Your task to perform on an android device: What's on my calendar today? Image 0: 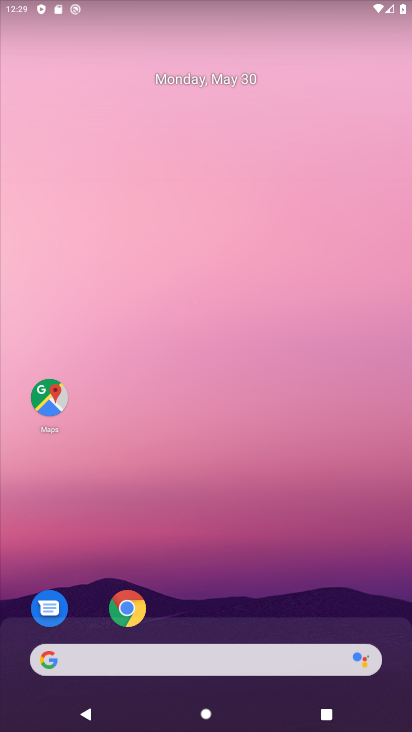
Step 0: drag from (330, 574) to (281, 0)
Your task to perform on an android device: What's on my calendar today? Image 1: 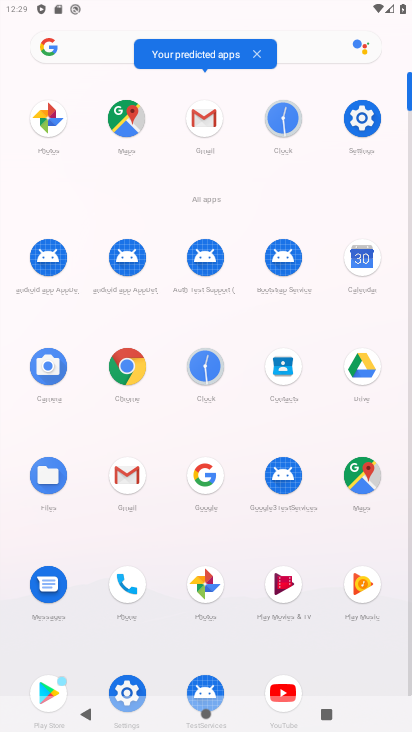
Step 1: click (284, 363)
Your task to perform on an android device: What's on my calendar today? Image 2: 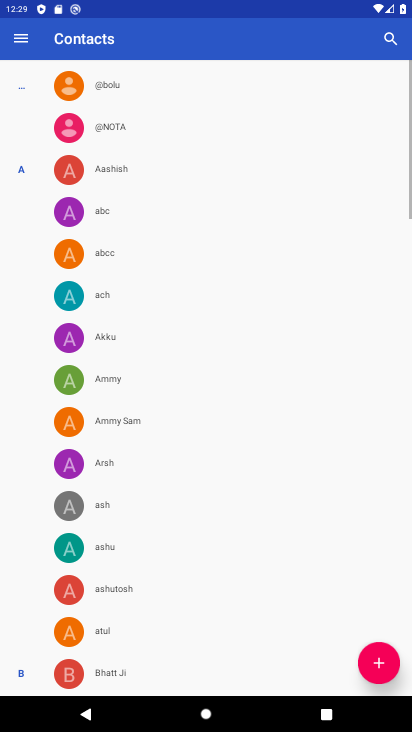
Step 2: press home button
Your task to perform on an android device: What's on my calendar today? Image 3: 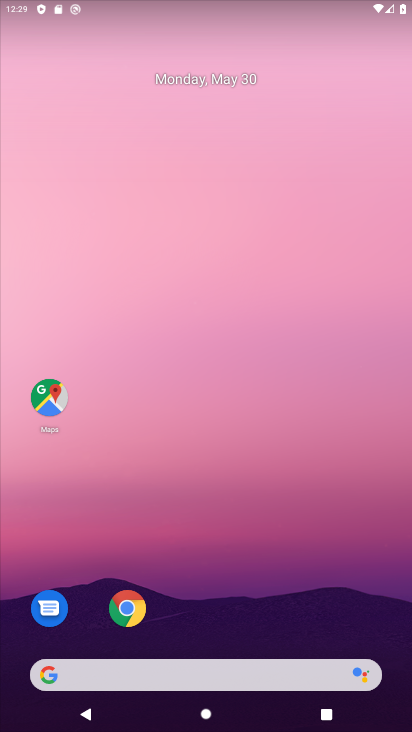
Step 3: drag from (302, 621) to (274, 104)
Your task to perform on an android device: What's on my calendar today? Image 4: 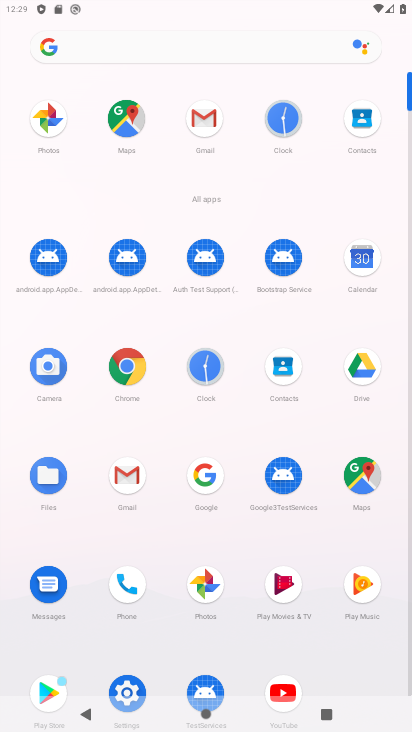
Step 4: click (355, 249)
Your task to perform on an android device: What's on my calendar today? Image 5: 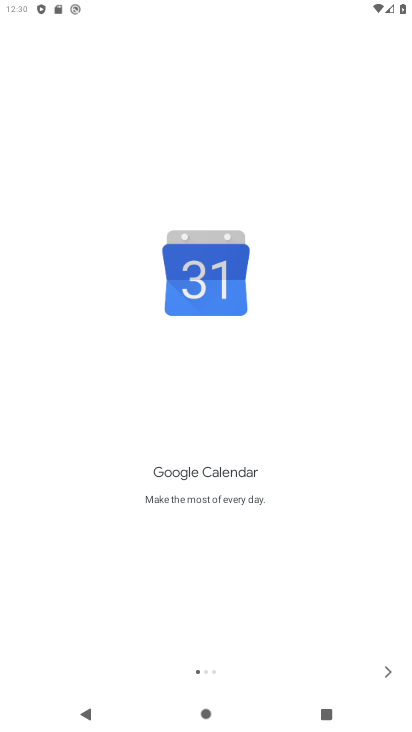
Step 5: click (383, 671)
Your task to perform on an android device: What's on my calendar today? Image 6: 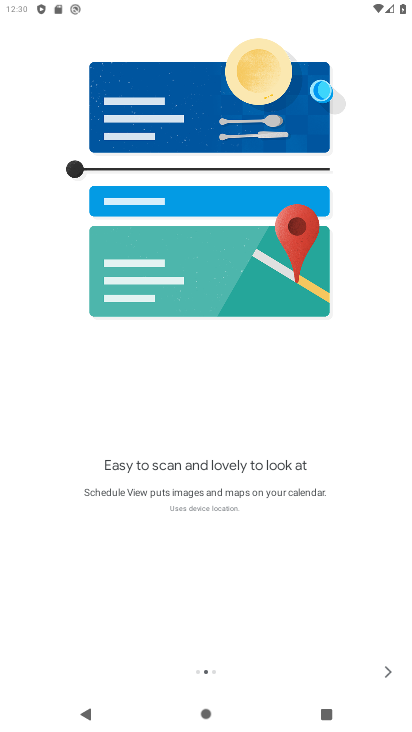
Step 6: click (383, 671)
Your task to perform on an android device: What's on my calendar today? Image 7: 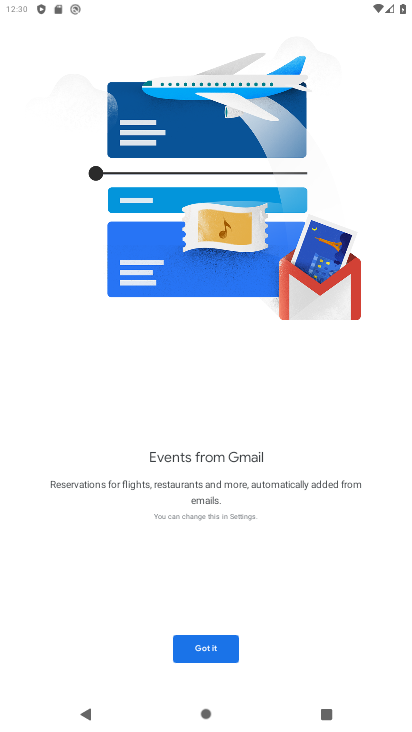
Step 7: click (216, 646)
Your task to perform on an android device: What's on my calendar today? Image 8: 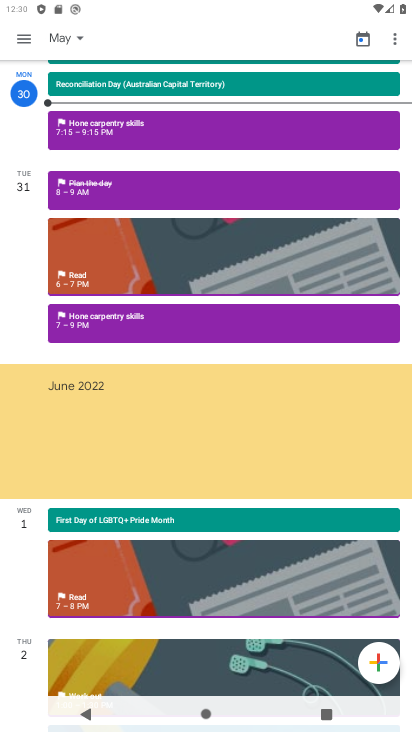
Step 8: click (23, 37)
Your task to perform on an android device: What's on my calendar today? Image 9: 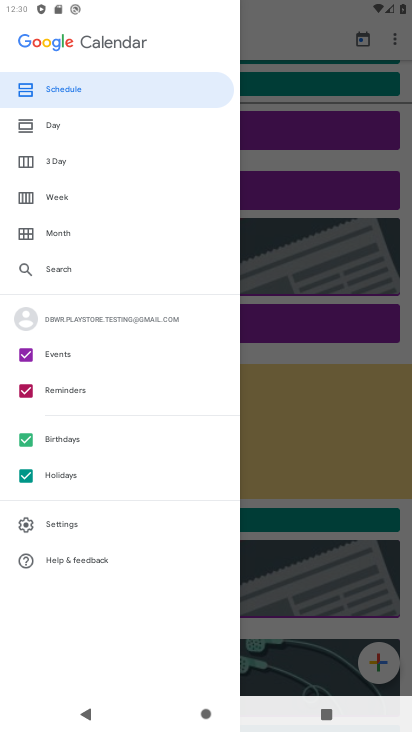
Step 9: click (72, 127)
Your task to perform on an android device: What's on my calendar today? Image 10: 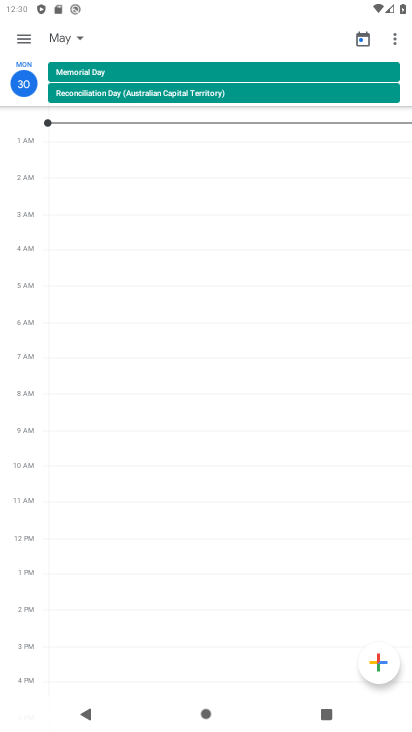
Step 10: click (80, 28)
Your task to perform on an android device: What's on my calendar today? Image 11: 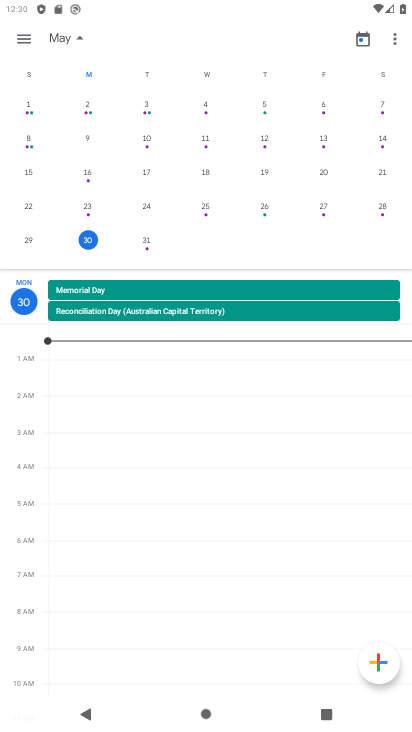
Step 11: click (142, 238)
Your task to perform on an android device: What's on my calendar today? Image 12: 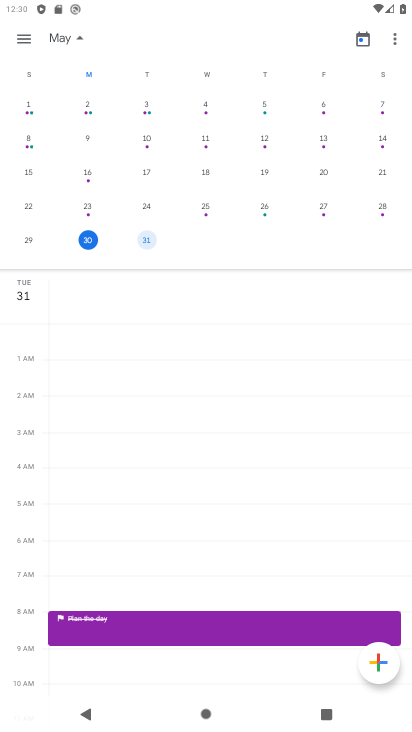
Step 12: drag from (234, 495) to (228, 318)
Your task to perform on an android device: What's on my calendar today? Image 13: 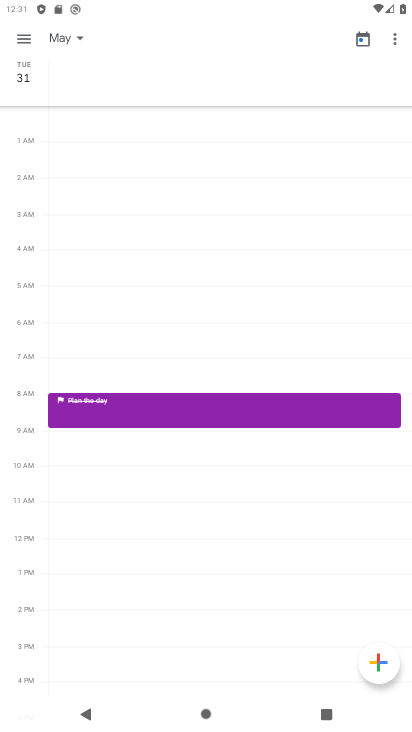
Step 13: click (81, 32)
Your task to perform on an android device: What's on my calendar today? Image 14: 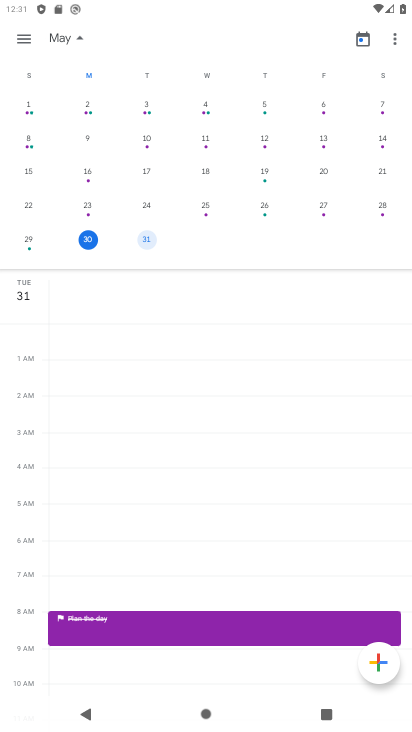
Step 14: click (91, 244)
Your task to perform on an android device: What's on my calendar today? Image 15: 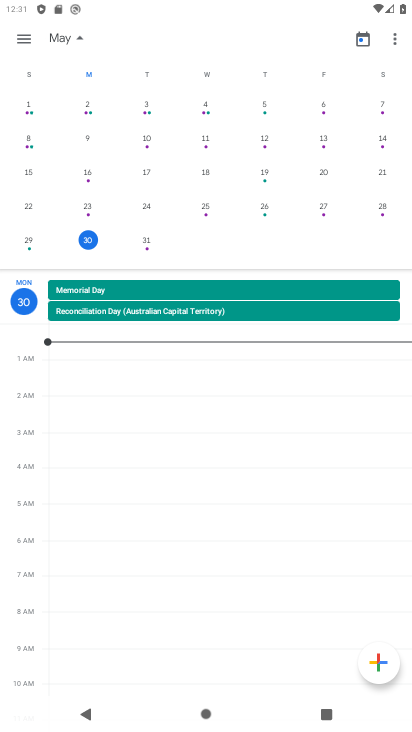
Step 15: task complete